Your task to perform on an android device: Go to location settings Image 0: 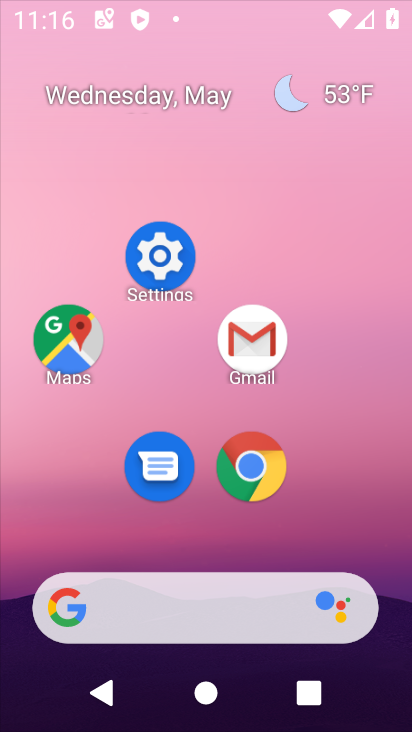
Step 0: drag from (202, 549) to (282, 64)
Your task to perform on an android device: Go to location settings Image 1: 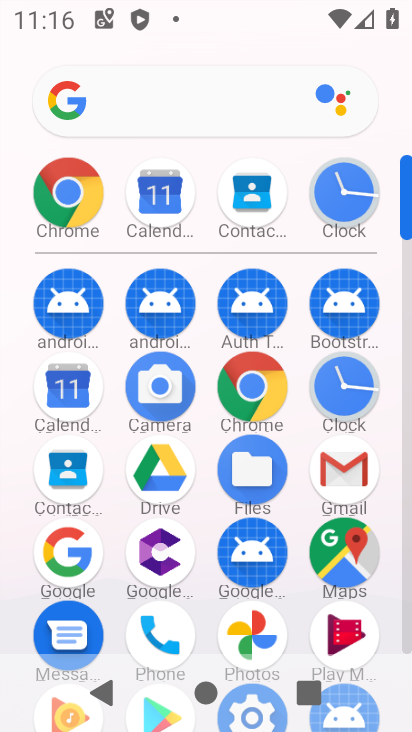
Step 1: drag from (199, 627) to (194, 213)
Your task to perform on an android device: Go to location settings Image 2: 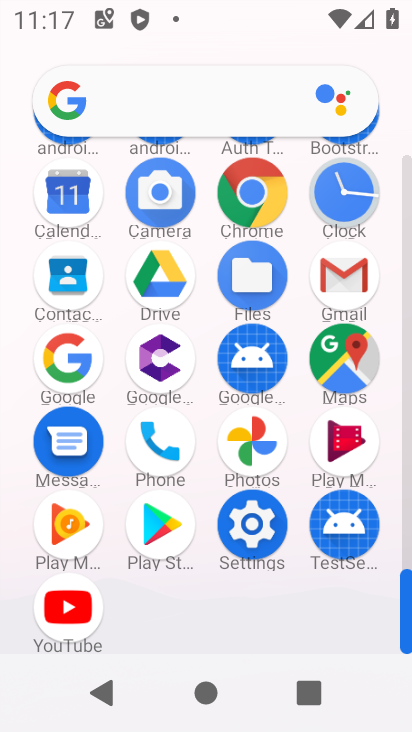
Step 2: click (256, 541)
Your task to perform on an android device: Go to location settings Image 3: 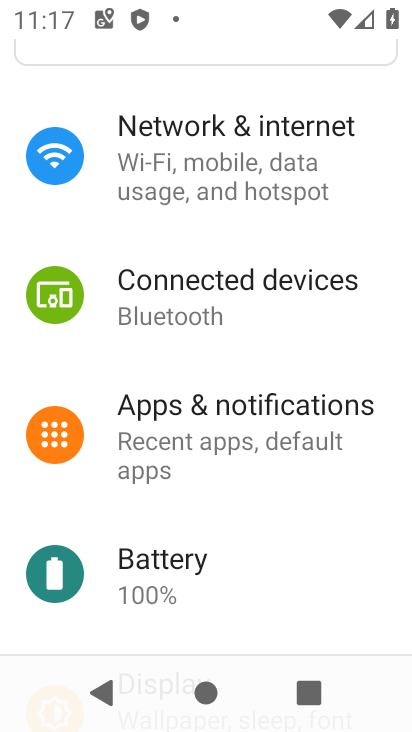
Step 3: drag from (220, 584) to (283, 270)
Your task to perform on an android device: Go to location settings Image 4: 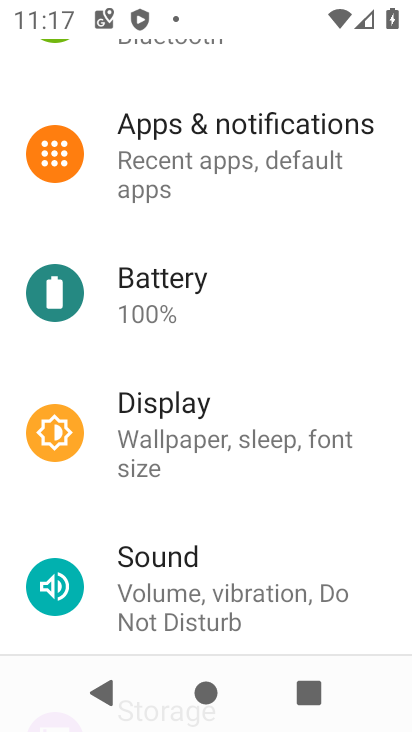
Step 4: drag from (267, 562) to (286, 201)
Your task to perform on an android device: Go to location settings Image 5: 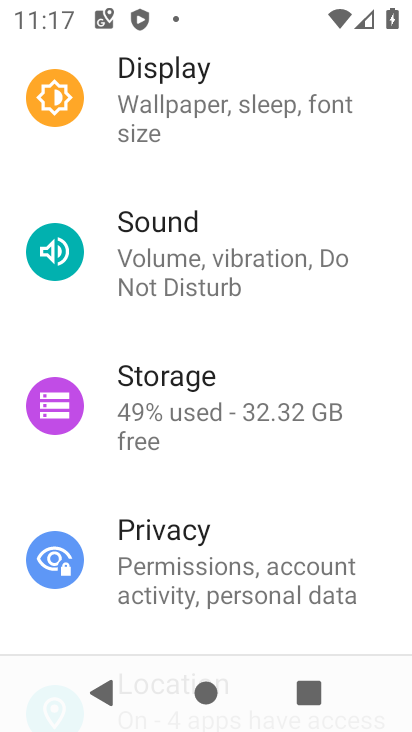
Step 5: drag from (224, 570) to (278, 332)
Your task to perform on an android device: Go to location settings Image 6: 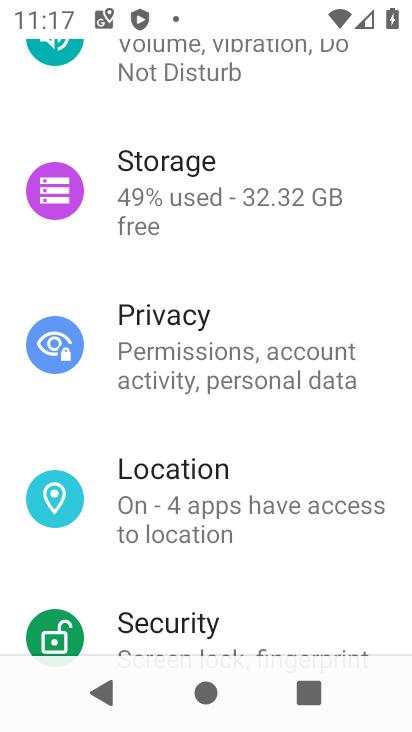
Step 6: click (220, 482)
Your task to perform on an android device: Go to location settings Image 7: 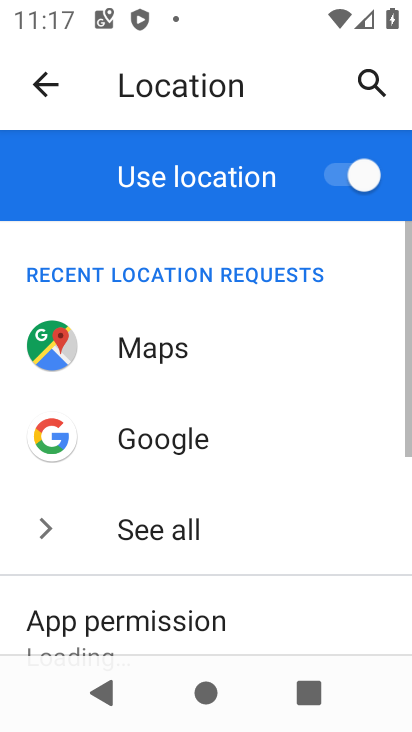
Step 7: task complete